Your task to perform on an android device: Search for razer nari on costco, select the first entry, and add it to the cart. Image 0: 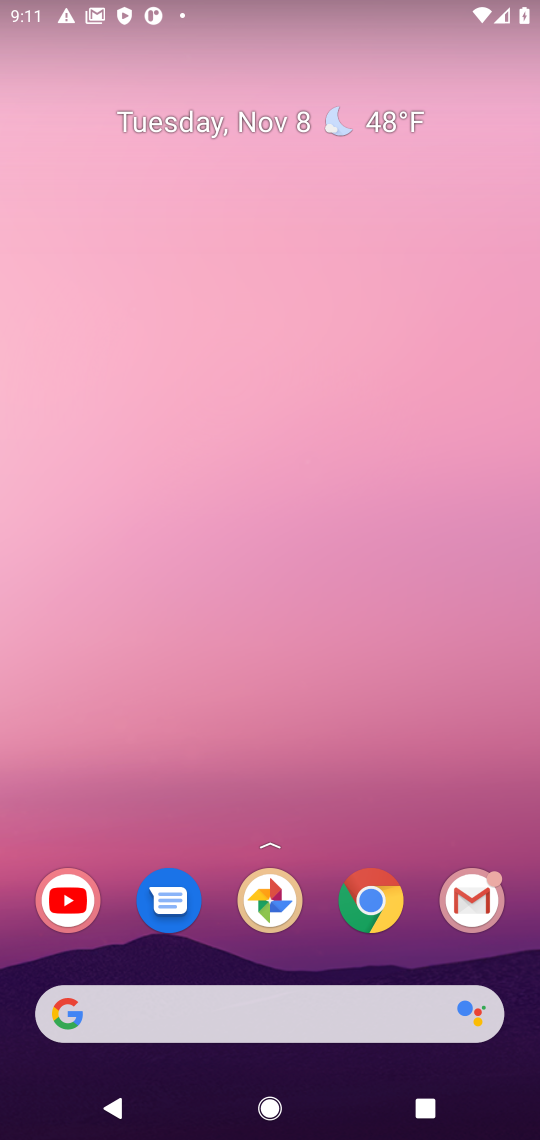
Step 0: click (384, 901)
Your task to perform on an android device: Search for razer nari on costco, select the first entry, and add it to the cart. Image 1: 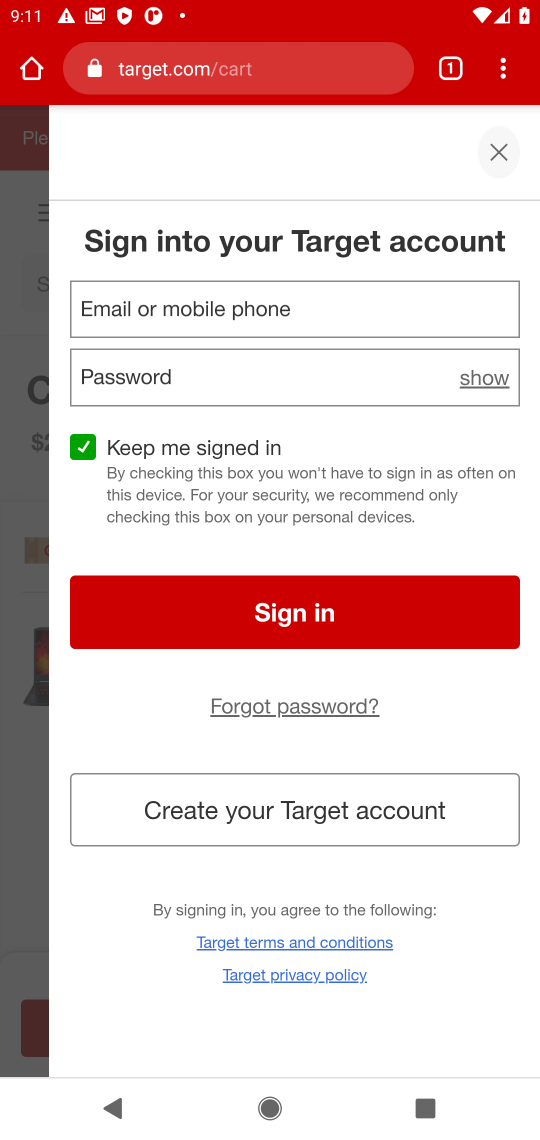
Step 1: click (179, 77)
Your task to perform on an android device: Search for razer nari on costco, select the first entry, and add it to the cart. Image 2: 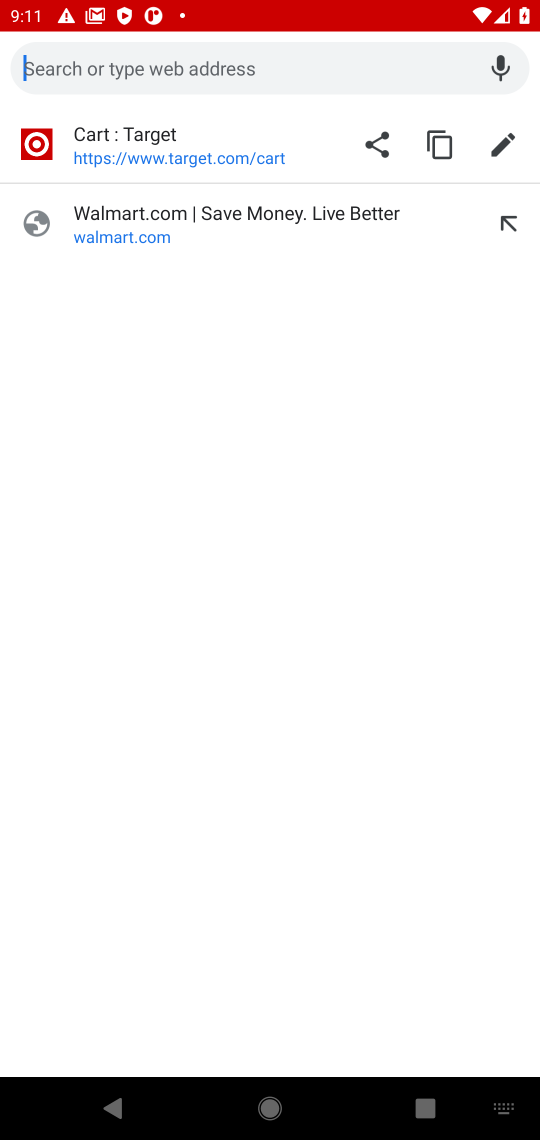
Step 2: type "costco"
Your task to perform on an android device: Search for razer nari on costco, select the first entry, and add it to the cart. Image 3: 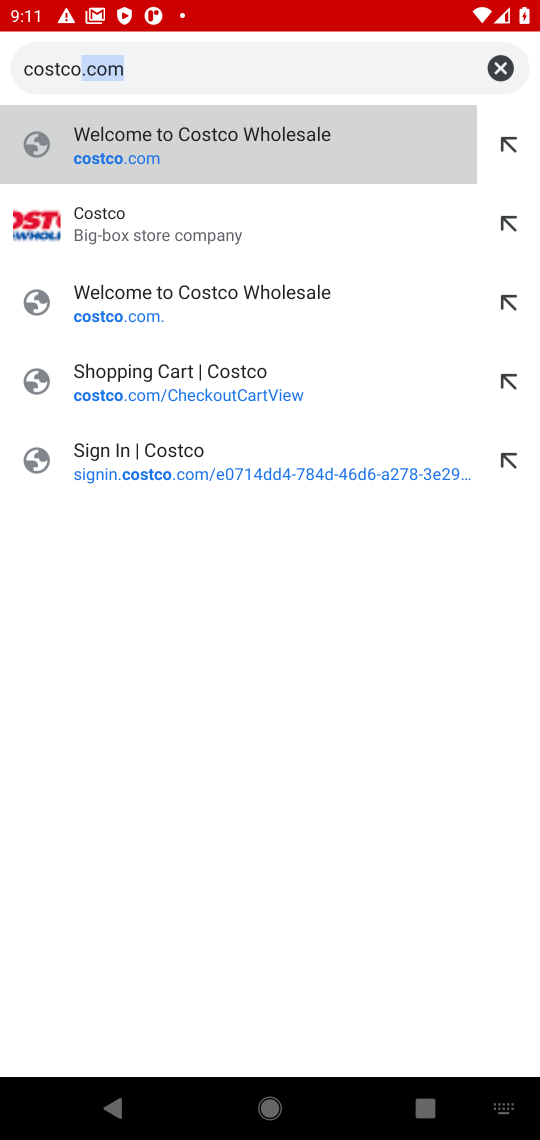
Step 3: click (87, 216)
Your task to perform on an android device: Search for razer nari on costco, select the first entry, and add it to the cart. Image 4: 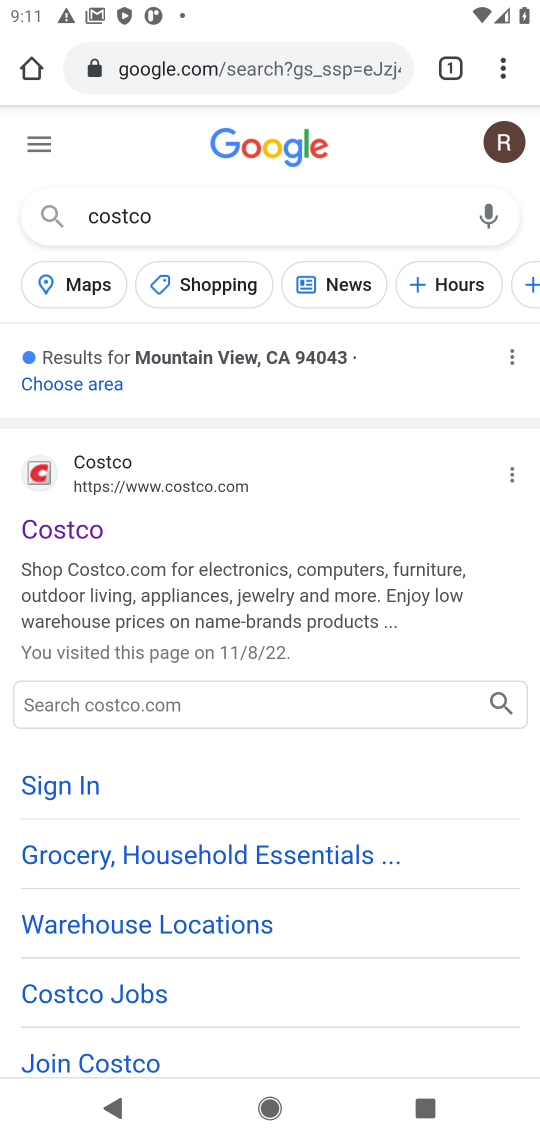
Step 4: click (47, 525)
Your task to perform on an android device: Search for razer nari on costco, select the first entry, and add it to the cart. Image 5: 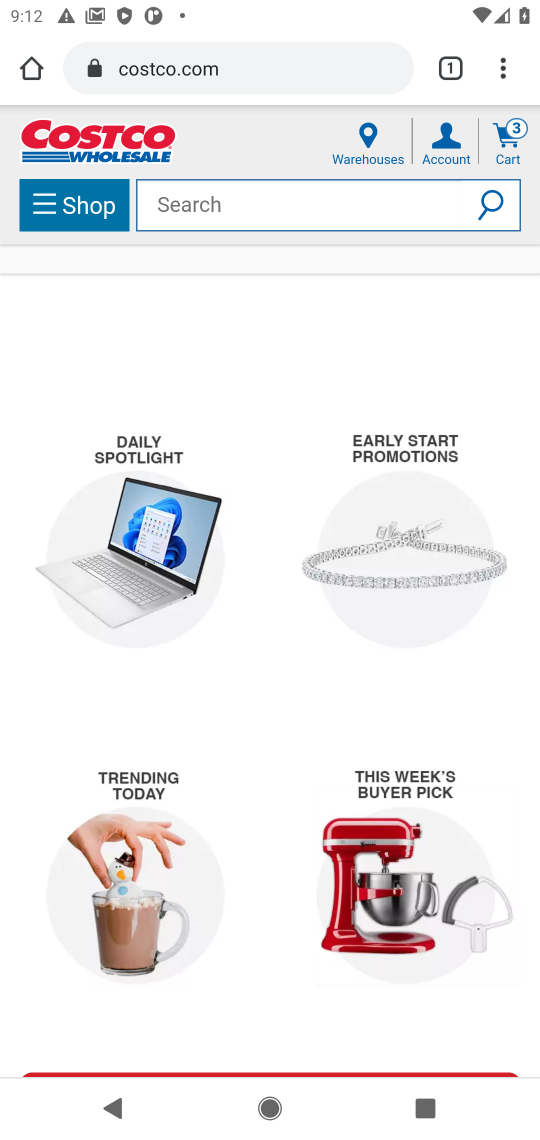
Step 5: click (422, 213)
Your task to perform on an android device: Search for razer nari on costco, select the first entry, and add it to the cart. Image 6: 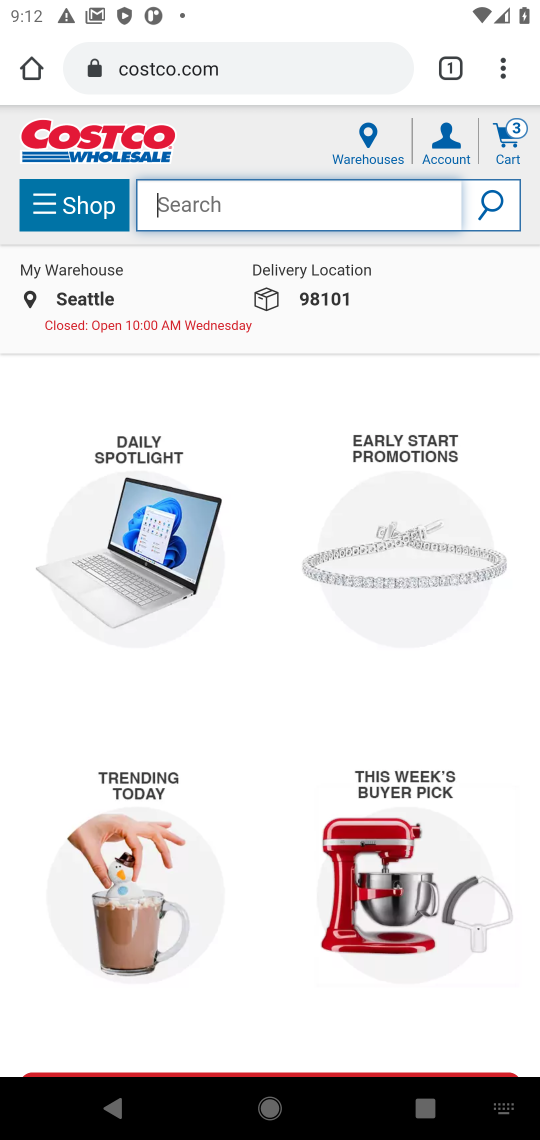
Step 6: type "razer nari"
Your task to perform on an android device: Search for razer nari on costco, select the first entry, and add it to the cart. Image 7: 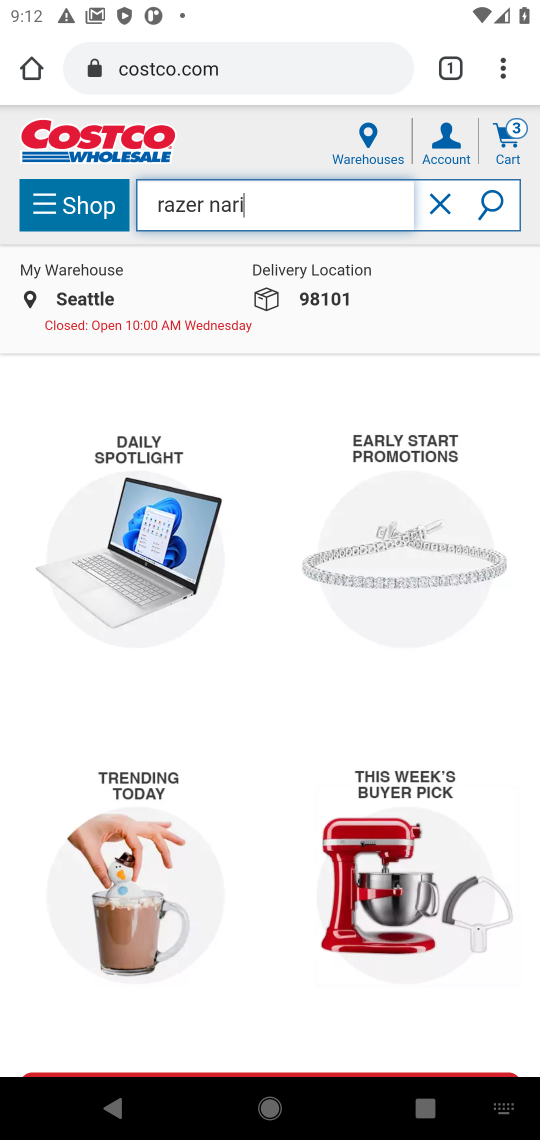
Step 7: type ""
Your task to perform on an android device: Search for razer nari on costco, select the first entry, and add it to the cart. Image 8: 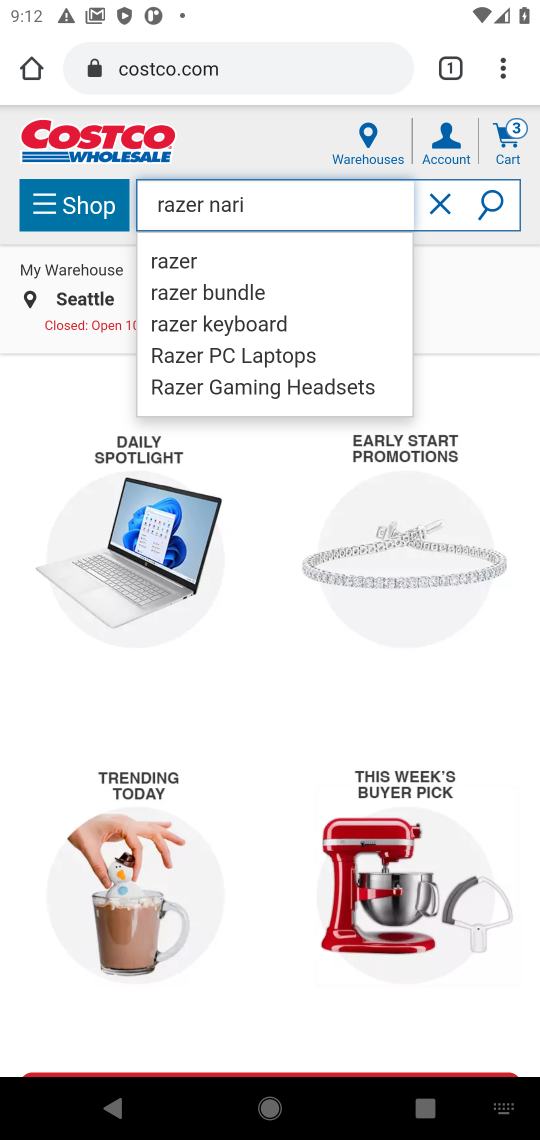
Step 8: click (184, 291)
Your task to perform on an android device: Search for razer nari on costco, select the first entry, and add it to the cart. Image 9: 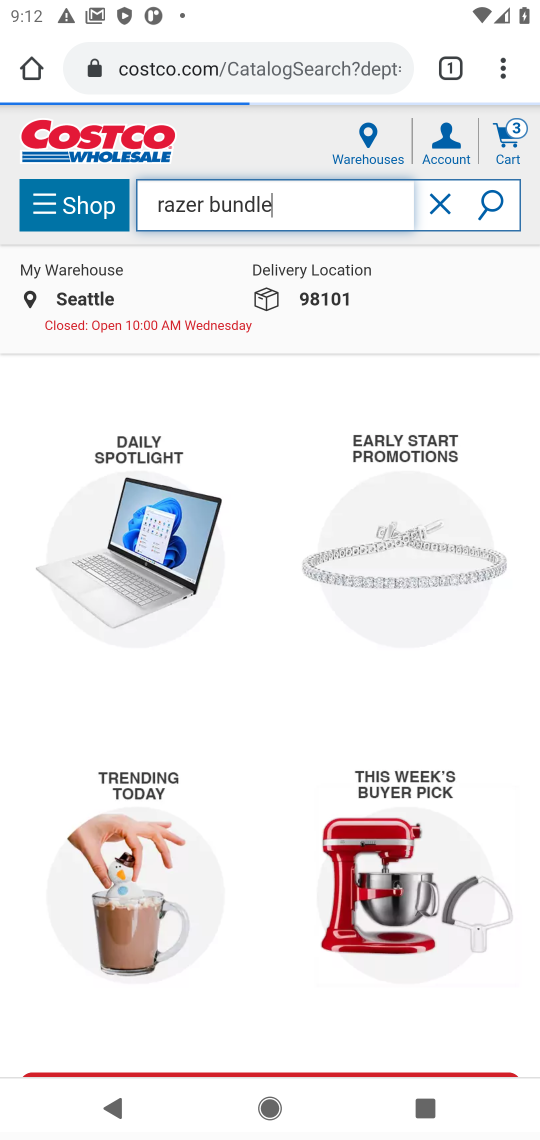
Step 9: click (493, 206)
Your task to perform on an android device: Search for razer nari on costco, select the first entry, and add it to the cart. Image 10: 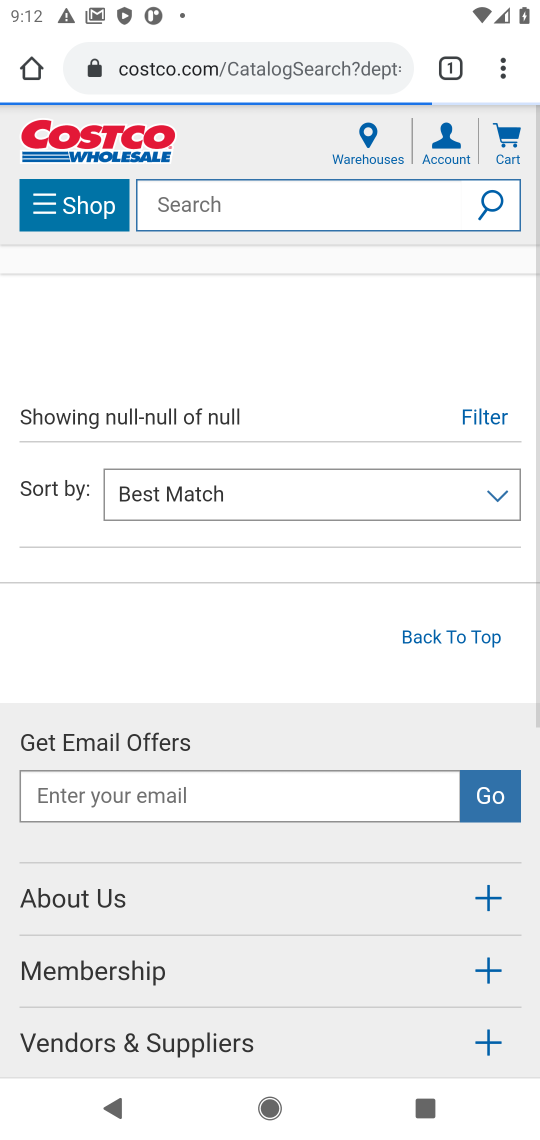
Step 10: drag from (288, 939) to (264, 184)
Your task to perform on an android device: Search for razer nari on costco, select the first entry, and add it to the cart. Image 11: 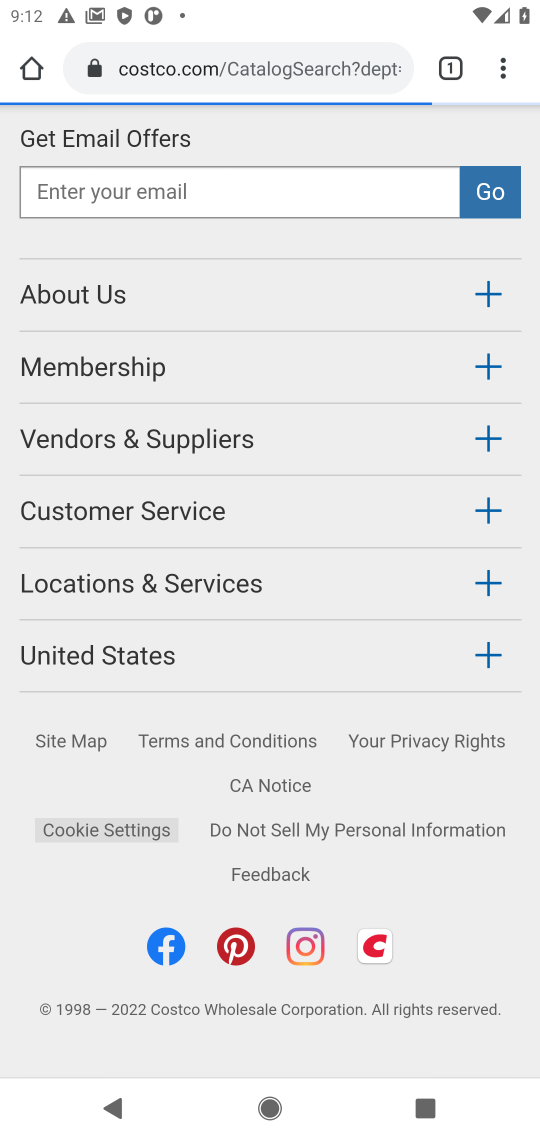
Step 11: drag from (298, 312) to (324, 1010)
Your task to perform on an android device: Search for razer nari on costco, select the first entry, and add it to the cart. Image 12: 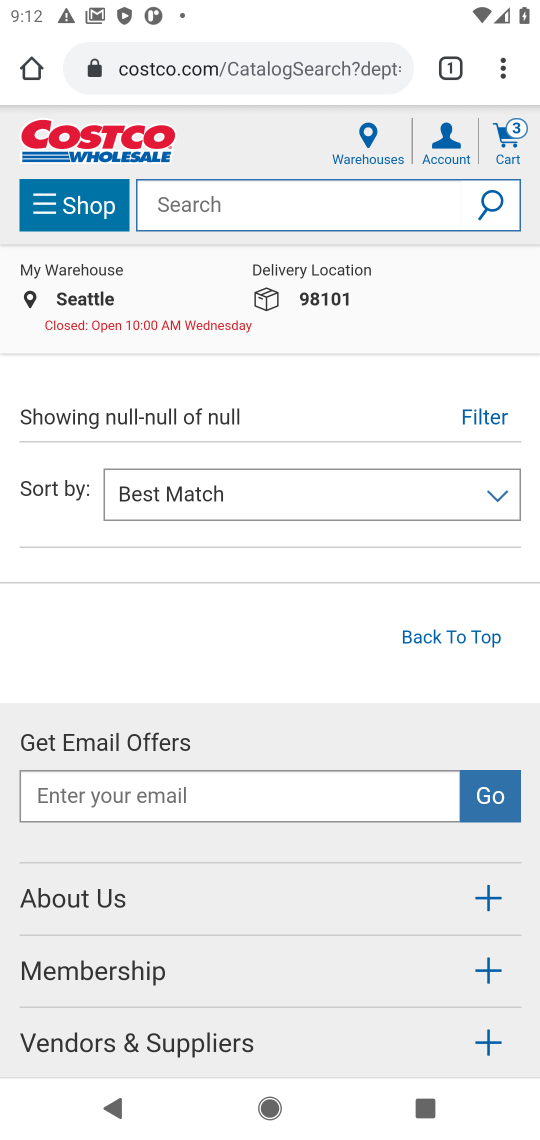
Step 12: press back button
Your task to perform on an android device: Search for razer nari on costco, select the first entry, and add it to the cart. Image 13: 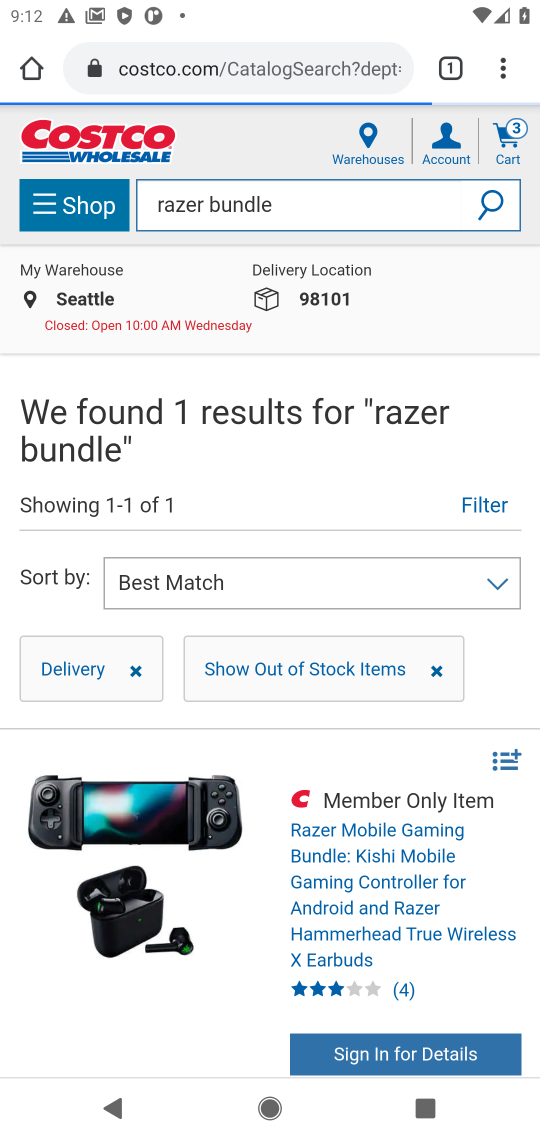
Step 13: drag from (193, 936) to (264, 217)
Your task to perform on an android device: Search for razer nari on costco, select the first entry, and add it to the cart. Image 14: 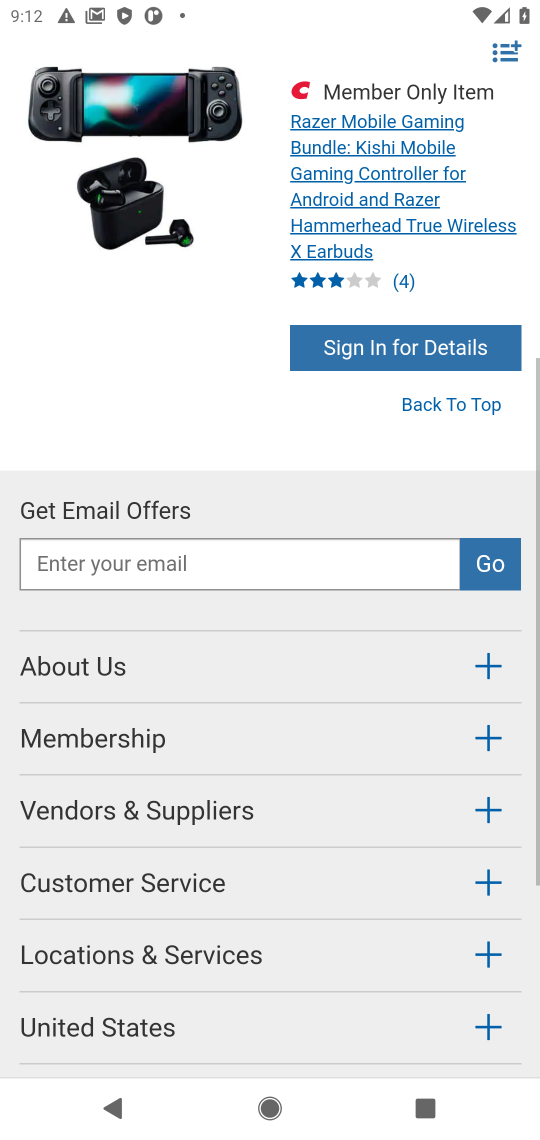
Step 14: drag from (241, 248) to (120, 903)
Your task to perform on an android device: Search for razer nari on costco, select the first entry, and add it to the cart. Image 15: 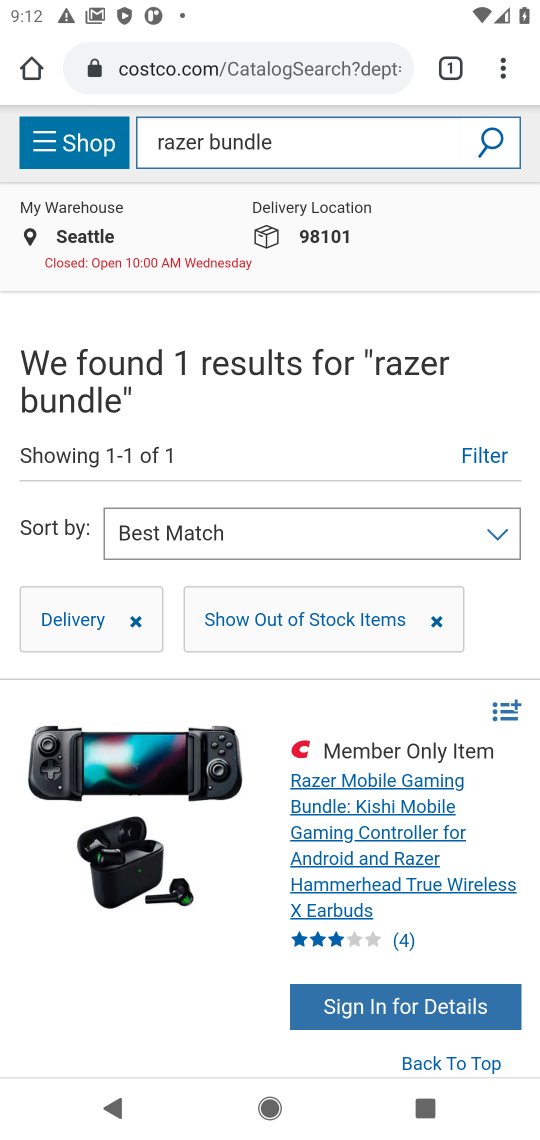
Step 15: click (496, 129)
Your task to perform on an android device: Search for razer nari on costco, select the first entry, and add it to the cart. Image 16: 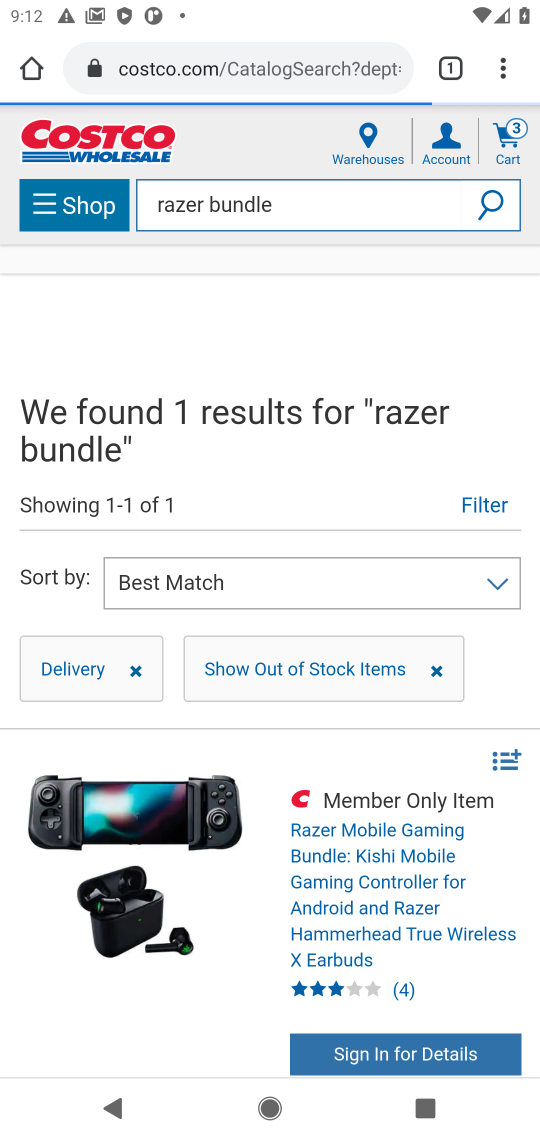
Step 16: click (253, 203)
Your task to perform on an android device: Search for razer nari on costco, select the first entry, and add it to the cart. Image 17: 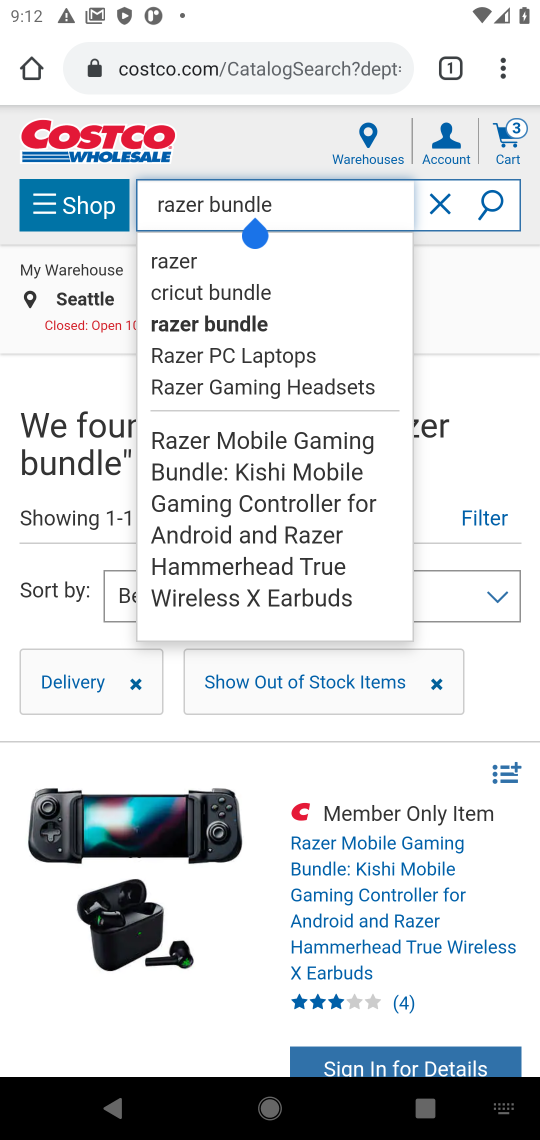
Step 17: click (441, 210)
Your task to perform on an android device: Search for razer nari on costco, select the first entry, and add it to the cart. Image 18: 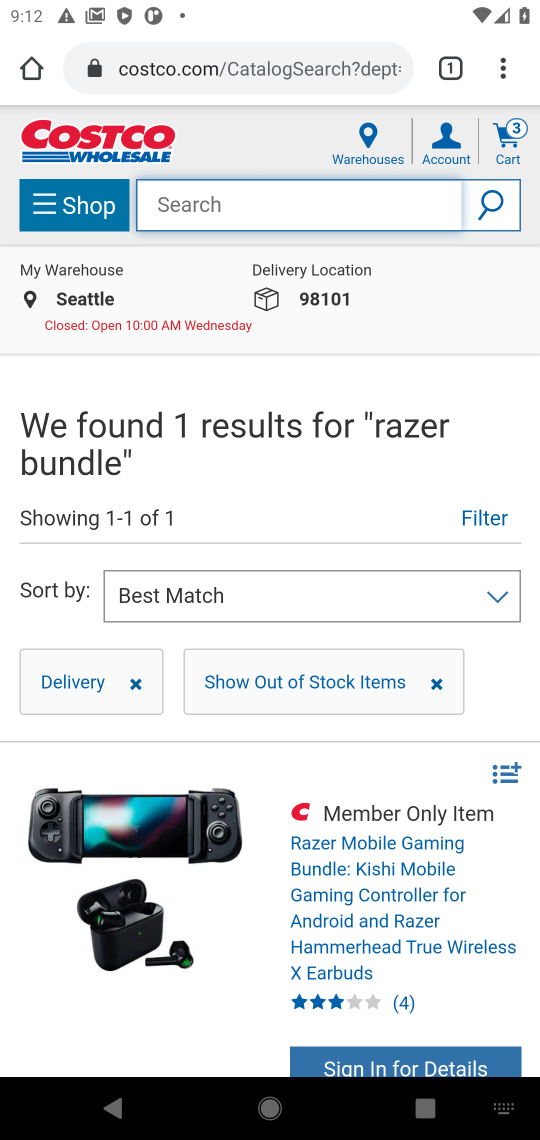
Step 18: type "razer nari"
Your task to perform on an android device: Search for razer nari on costco, select the first entry, and add it to the cart. Image 19: 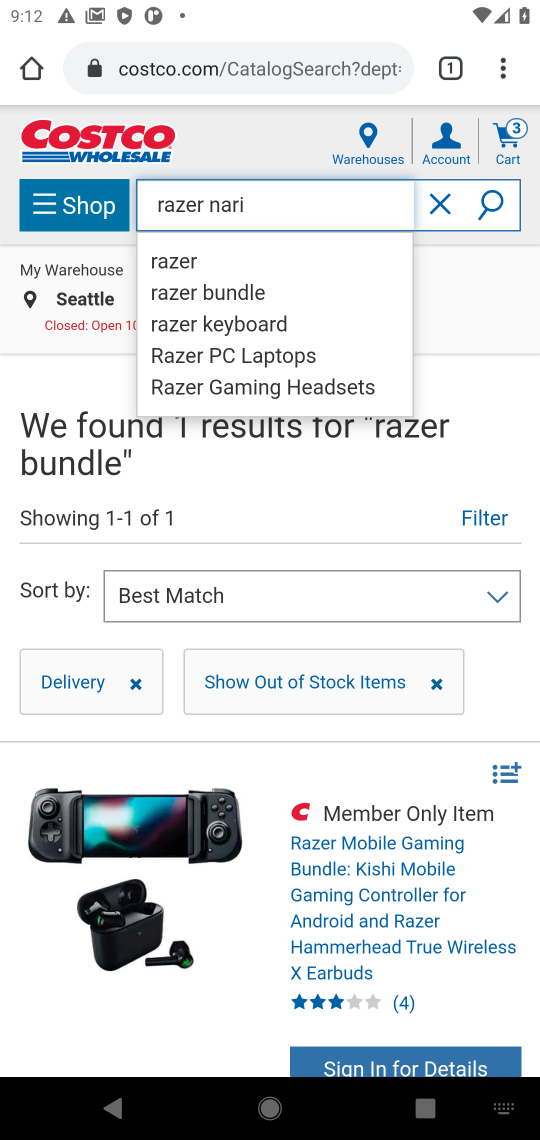
Step 19: click (175, 265)
Your task to perform on an android device: Search for razer nari on costco, select the first entry, and add it to the cart. Image 20: 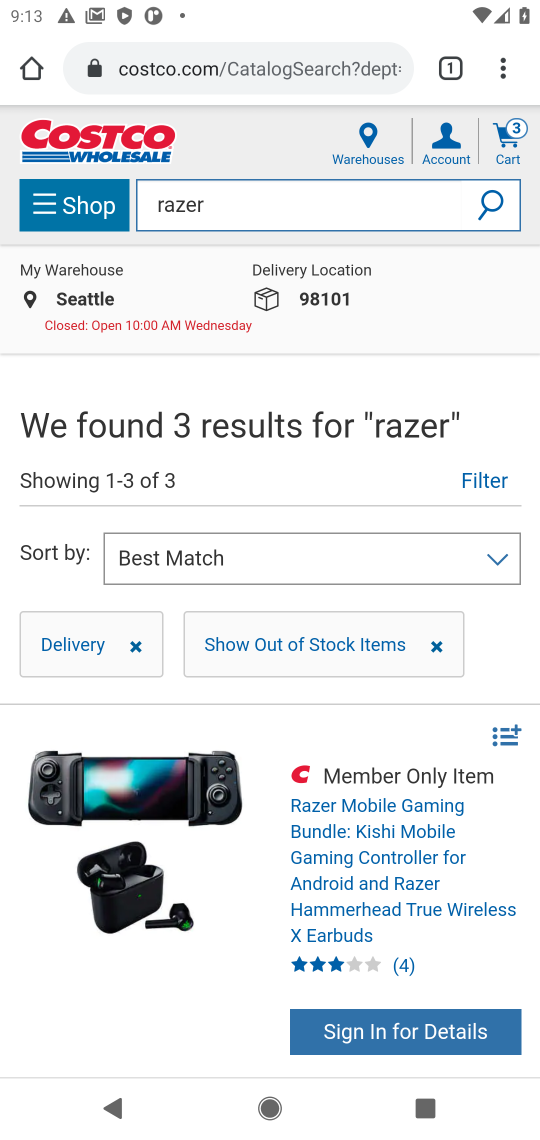
Step 20: click (302, 867)
Your task to perform on an android device: Search for razer nari on costco, select the first entry, and add it to the cart. Image 21: 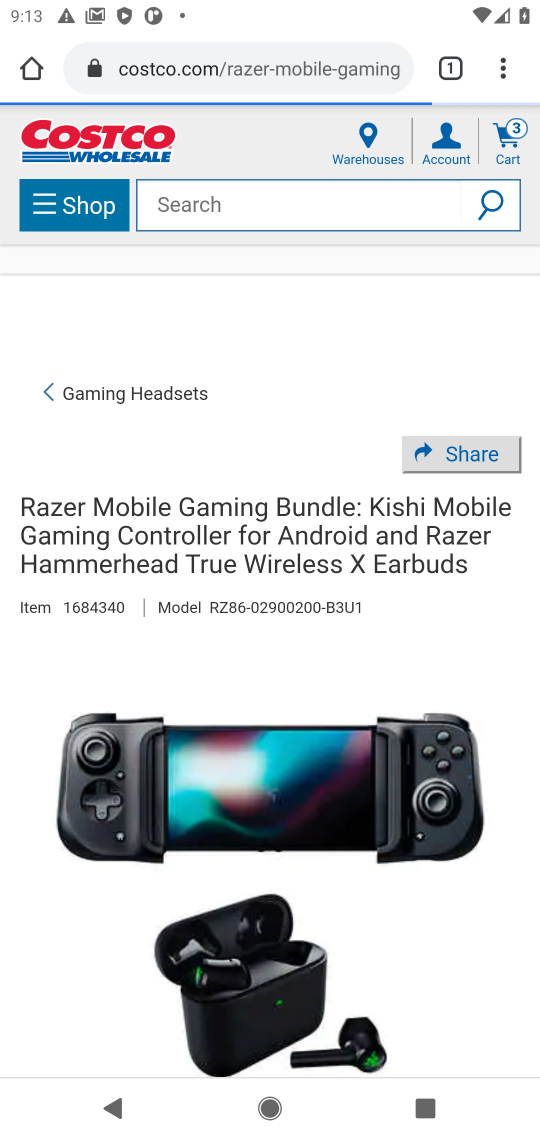
Step 21: drag from (377, 710) to (358, 311)
Your task to perform on an android device: Search for razer nari on costco, select the first entry, and add it to the cart. Image 22: 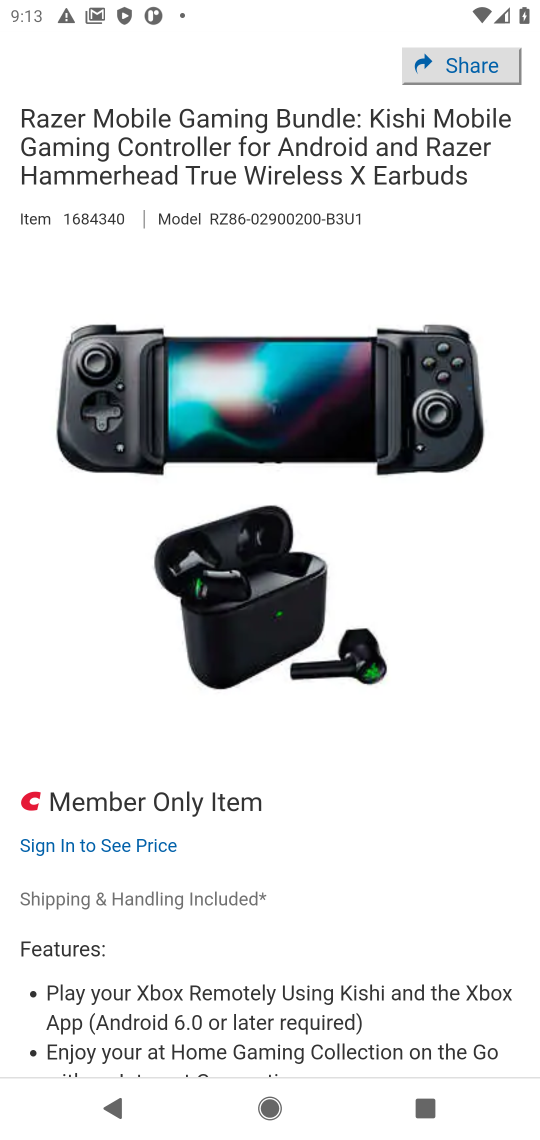
Step 22: drag from (204, 868) to (268, 489)
Your task to perform on an android device: Search for razer nari on costco, select the first entry, and add it to the cart. Image 23: 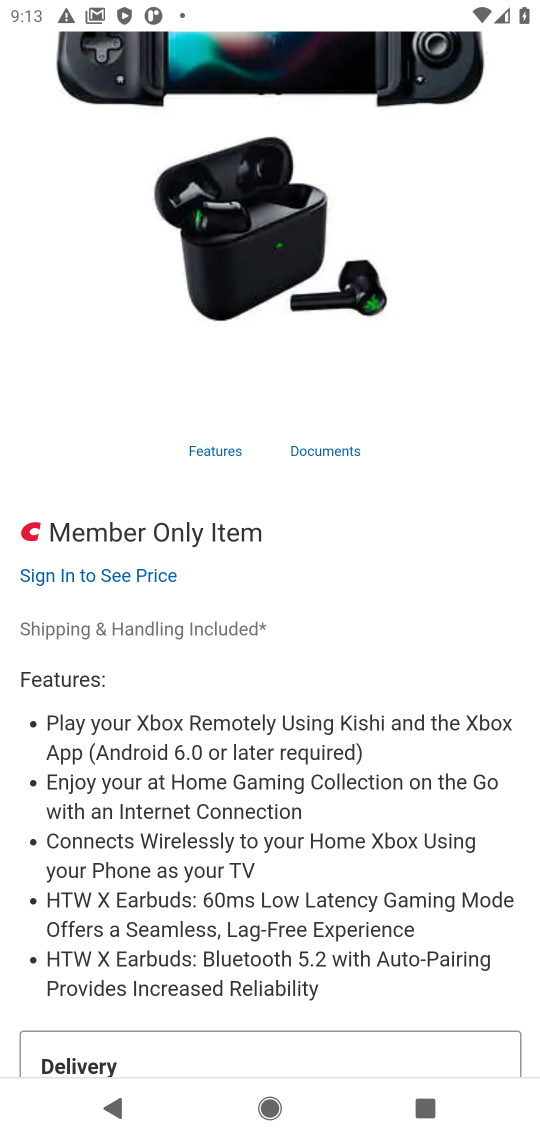
Step 23: drag from (250, 915) to (311, 486)
Your task to perform on an android device: Search for razer nari on costco, select the first entry, and add it to the cart. Image 24: 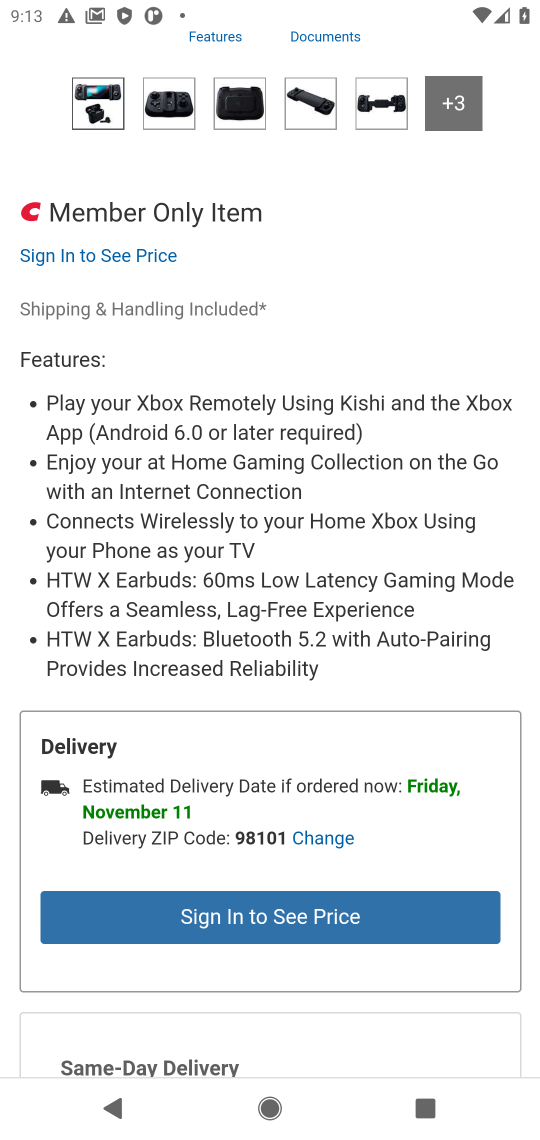
Step 24: drag from (262, 949) to (269, 491)
Your task to perform on an android device: Search for razer nari on costco, select the first entry, and add it to the cart. Image 25: 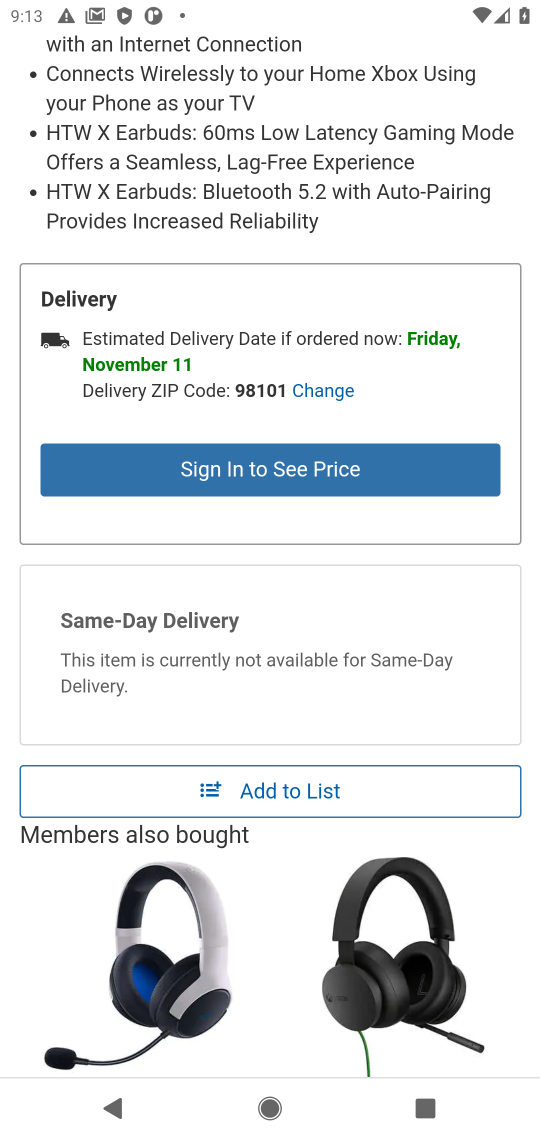
Step 25: click (299, 793)
Your task to perform on an android device: Search for razer nari on costco, select the first entry, and add it to the cart. Image 26: 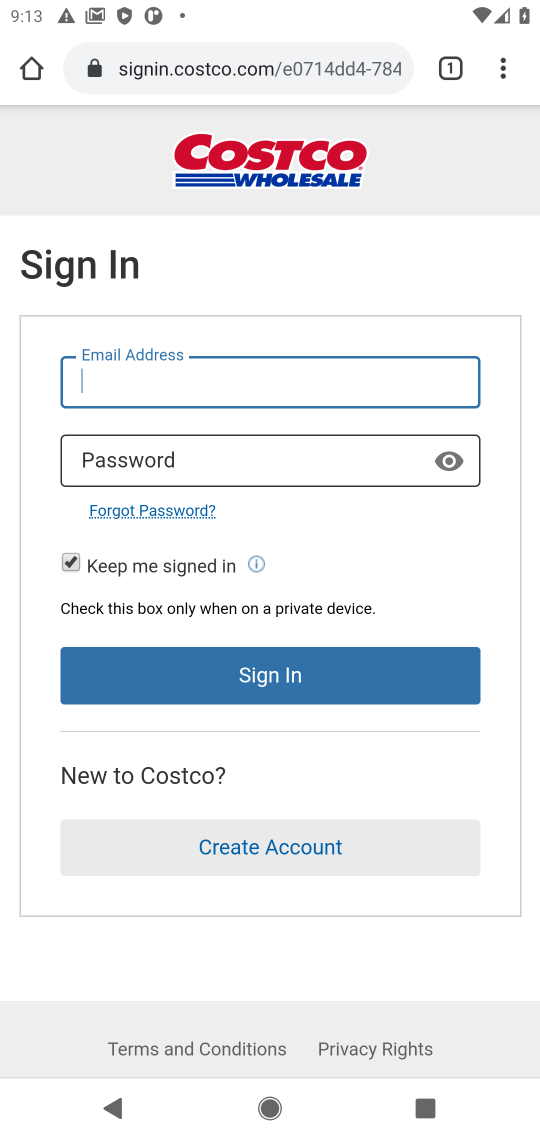
Step 26: task complete